Your task to perform on an android device: turn on bluetooth scan Image 0: 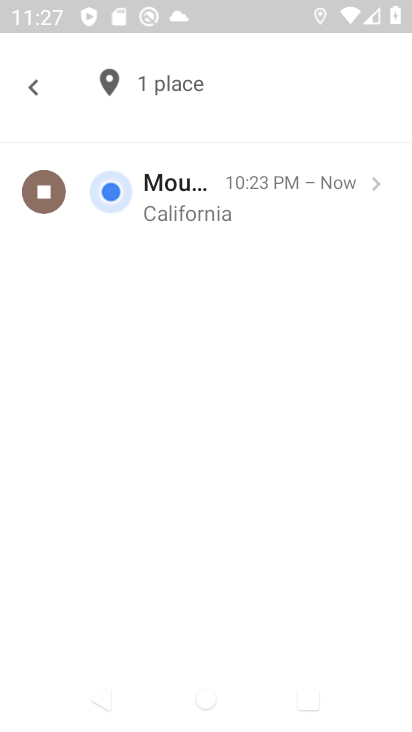
Step 0: press home button
Your task to perform on an android device: turn on bluetooth scan Image 1: 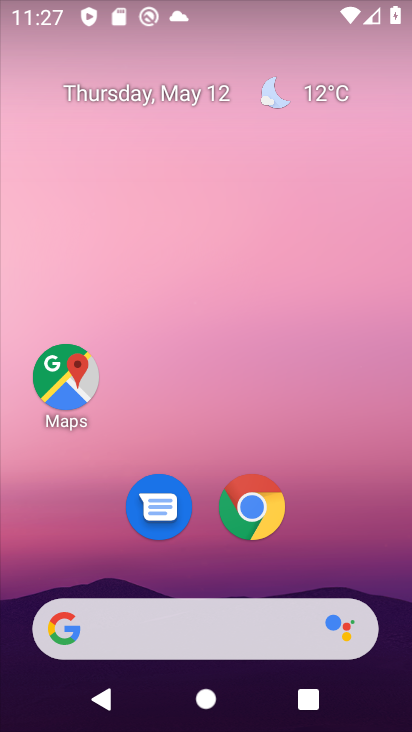
Step 1: drag from (222, 564) to (204, 7)
Your task to perform on an android device: turn on bluetooth scan Image 2: 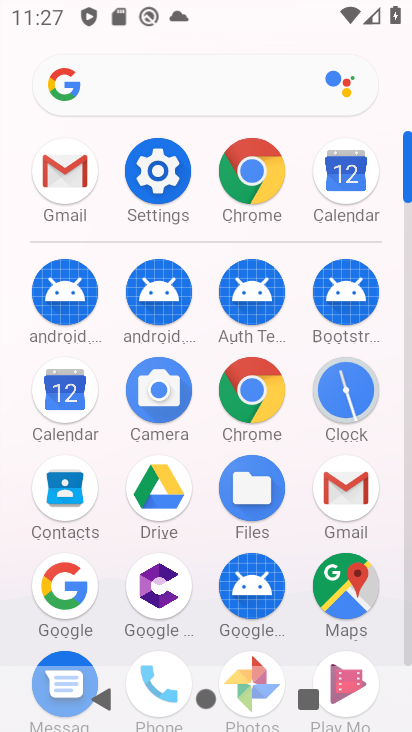
Step 2: click (160, 188)
Your task to perform on an android device: turn on bluetooth scan Image 3: 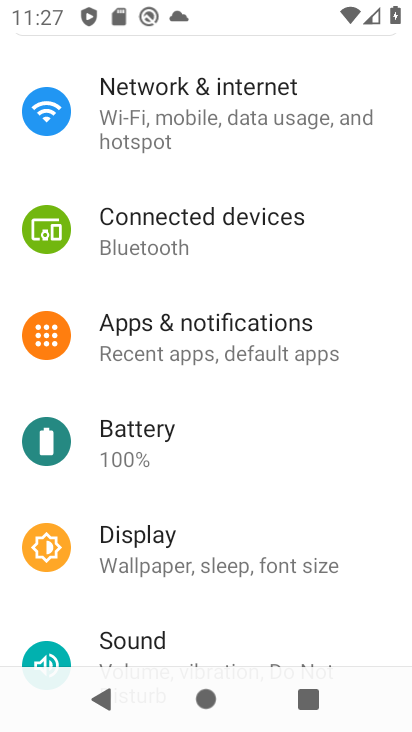
Step 3: drag from (175, 521) to (229, 249)
Your task to perform on an android device: turn on bluetooth scan Image 4: 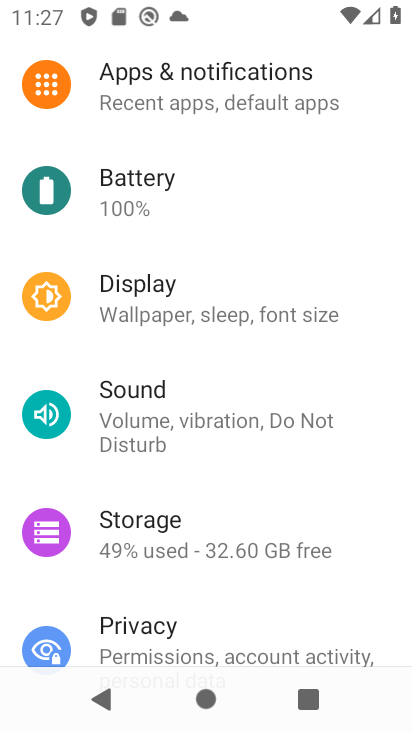
Step 4: drag from (182, 572) to (241, 125)
Your task to perform on an android device: turn on bluetooth scan Image 5: 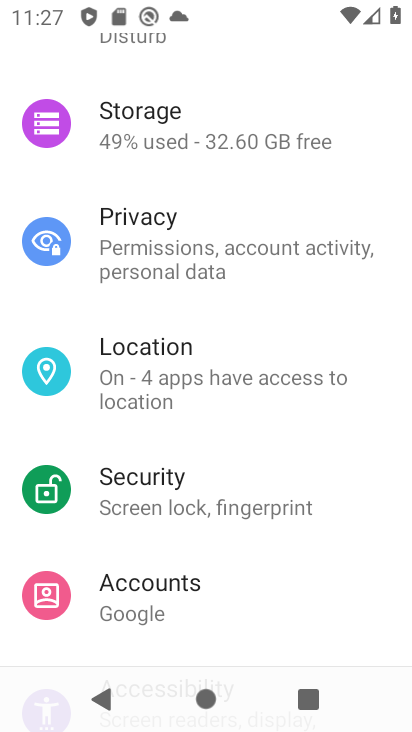
Step 5: click (169, 390)
Your task to perform on an android device: turn on bluetooth scan Image 6: 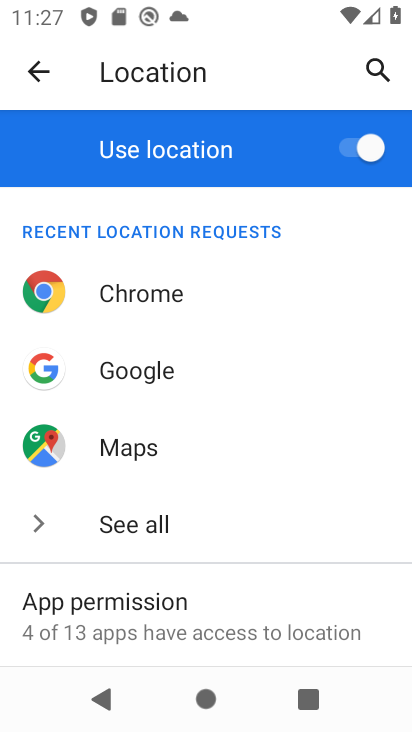
Step 6: drag from (129, 621) to (165, 373)
Your task to perform on an android device: turn on bluetooth scan Image 7: 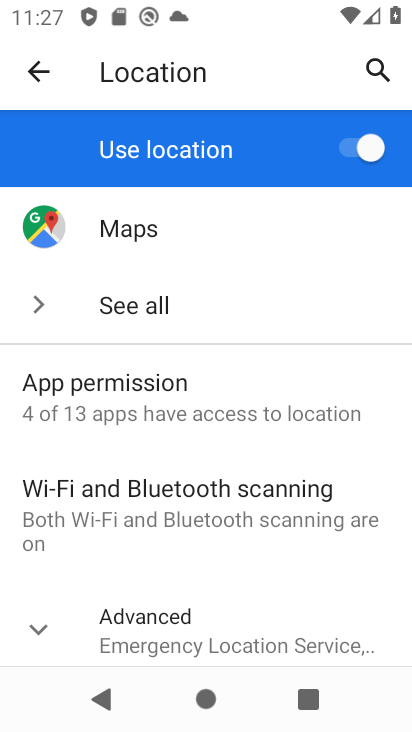
Step 7: click (207, 494)
Your task to perform on an android device: turn on bluetooth scan Image 8: 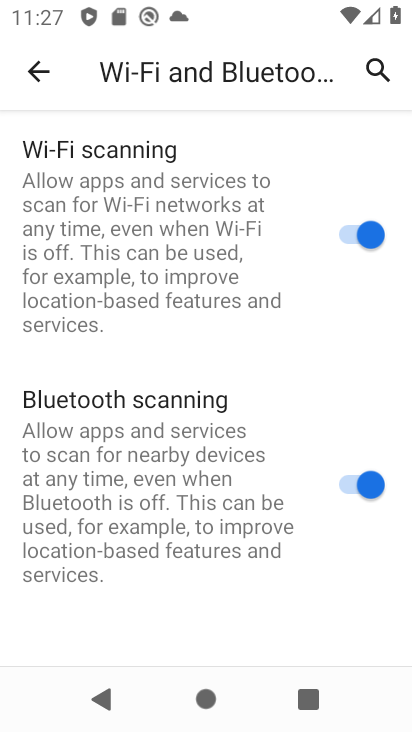
Step 8: task complete